Your task to perform on an android device: turn smart compose on in the gmail app Image 0: 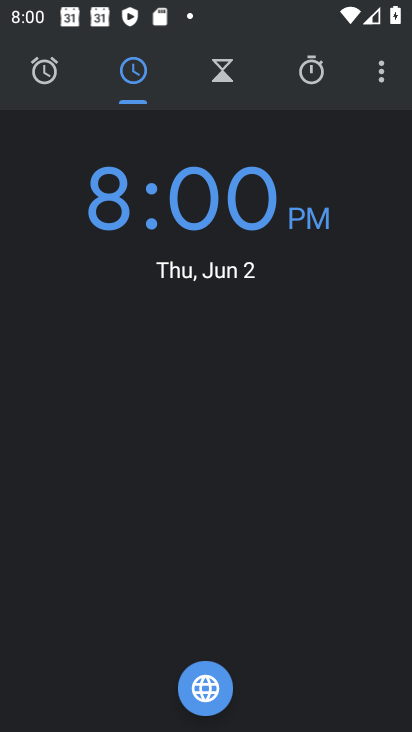
Step 0: press home button
Your task to perform on an android device: turn smart compose on in the gmail app Image 1: 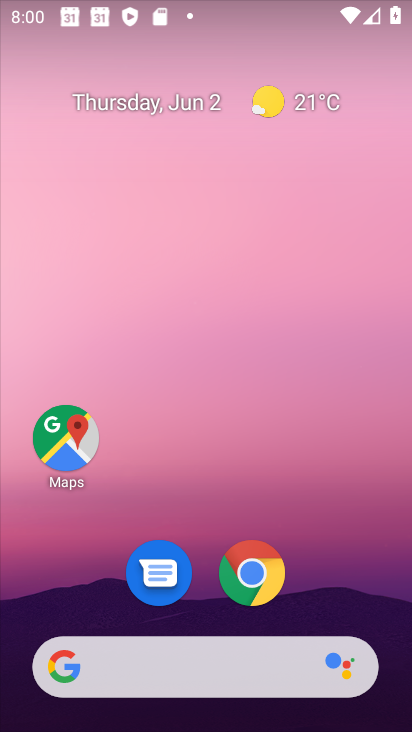
Step 1: drag from (341, 588) to (293, 113)
Your task to perform on an android device: turn smart compose on in the gmail app Image 2: 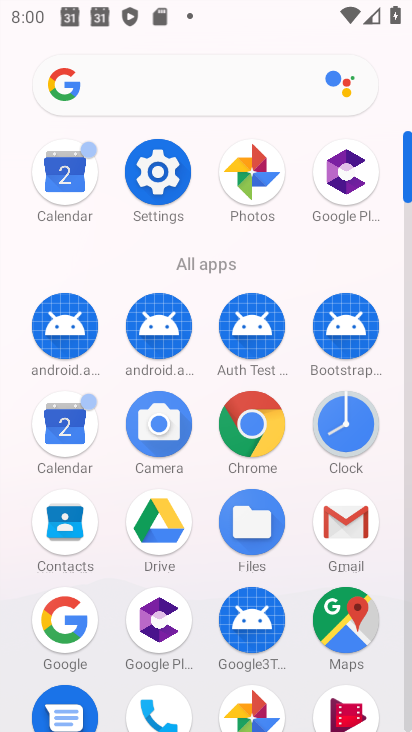
Step 2: click (360, 536)
Your task to perform on an android device: turn smart compose on in the gmail app Image 3: 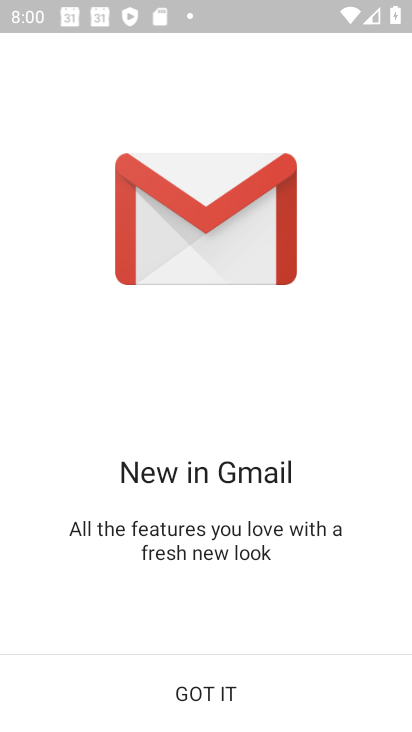
Step 3: click (226, 707)
Your task to perform on an android device: turn smart compose on in the gmail app Image 4: 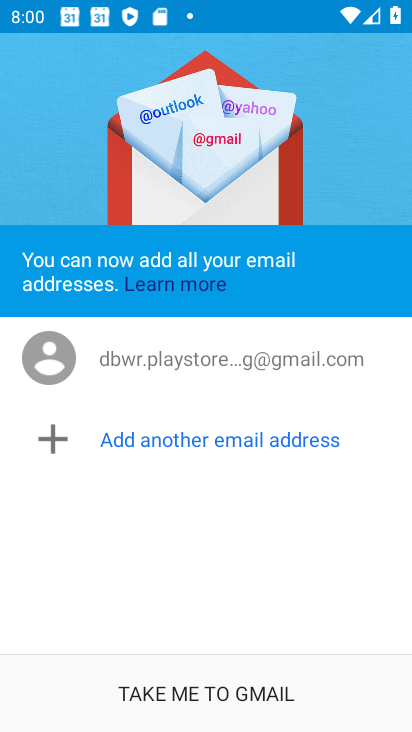
Step 4: click (226, 706)
Your task to perform on an android device: turn smart compose on in the gmail app Image 5: 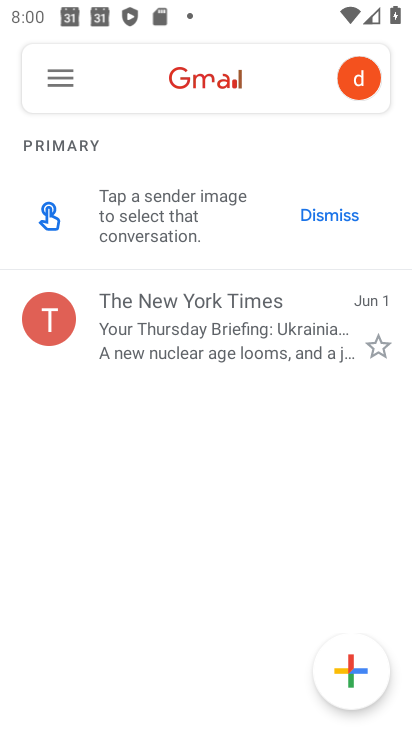
Step 5: click (61, 73)
Your task to perform on an android device: turn smart compose on in the gmail app Image 6: 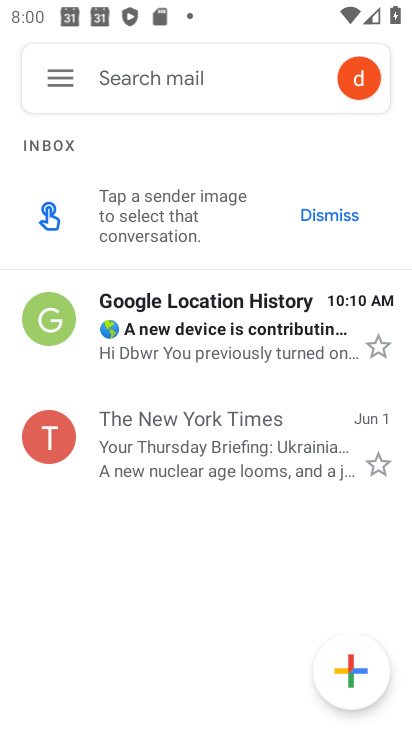
Step 6: click (58, 69)
Your task to perform on an android device: turn smart compose on in the gmail app Image 7: 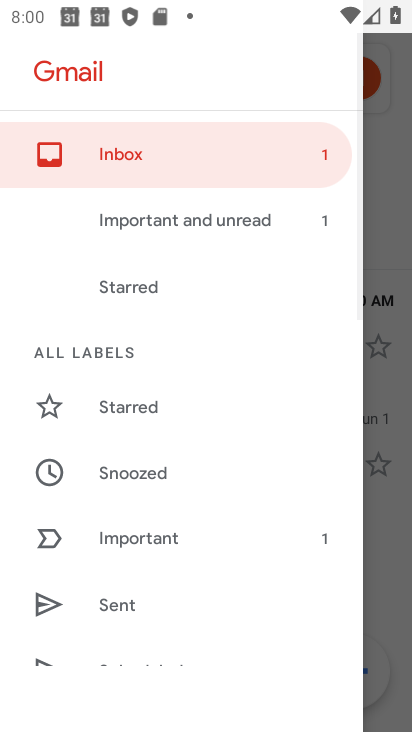
Step 7: drag from (205, 616) to (184, 250)
Your task to perform on an android device: turn smart compose on in the gmail app Image 8: 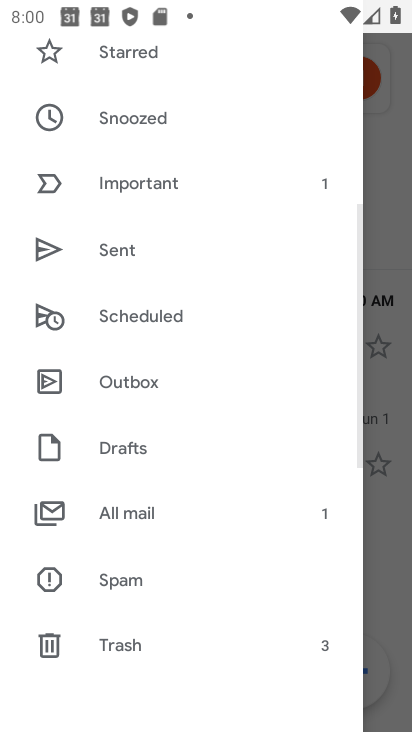
Step 8: drag from (151, 680) to (149, 196)
Your task to perform on an android device: turn smart compose on in the gmail app Image 9: 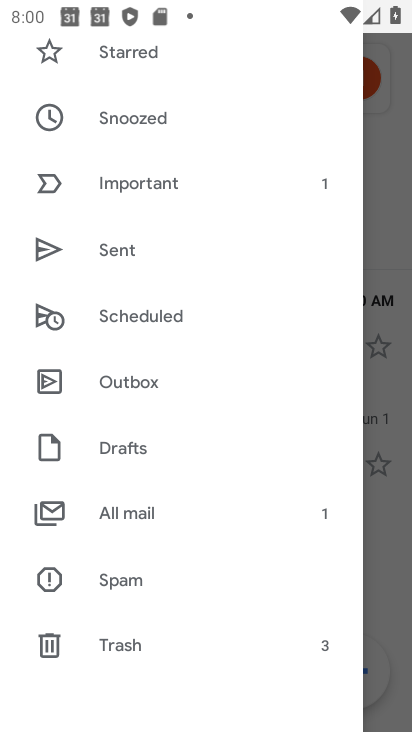
Step 9: drag from (162, 585) to (99, 143)
Your task to perform on an android device: turn smart compose on in the gmail app Image 10: 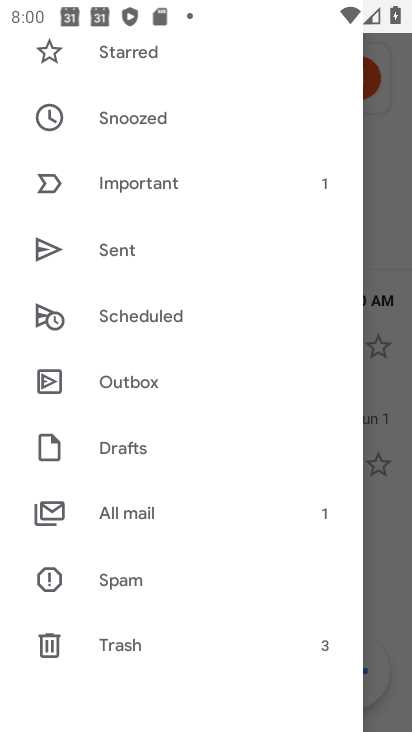
Step 10: drag from (134, 592) to (168, 113)
Your task to perform on an android device: turn smart compose on in the gmail app Image 11: 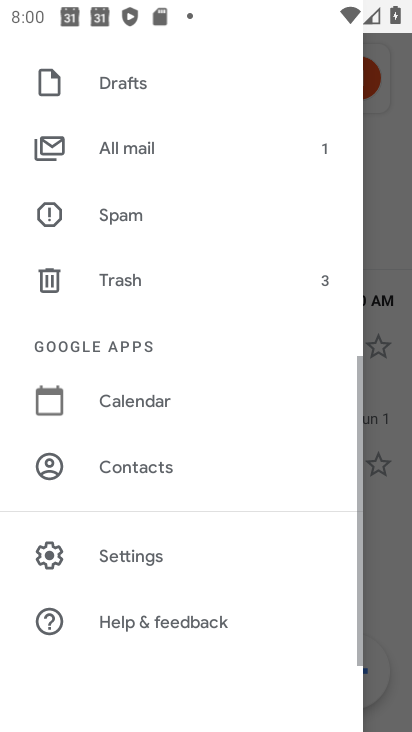
Step 11: click (122, 540)
Your task to perform on an android device: turn smart compose on in the gmail app Image 12: 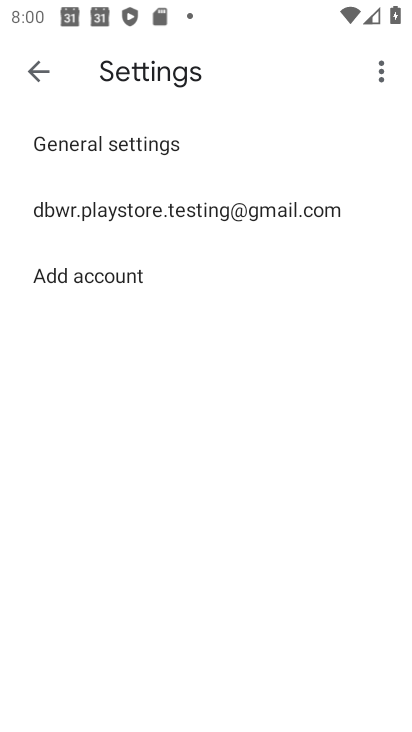
Step 12: click (151, 199)
Your task to perform on an android device: turn smart compose on in the gmail app Image 13: 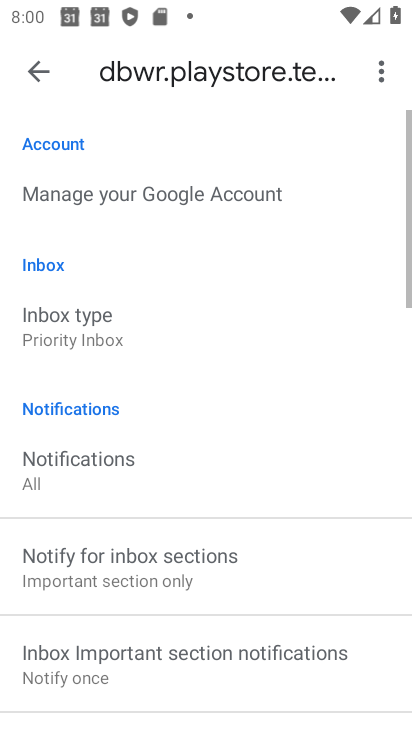
Step 13: task complete